Your task to perform on an android device: Go to Google maps Image 0: 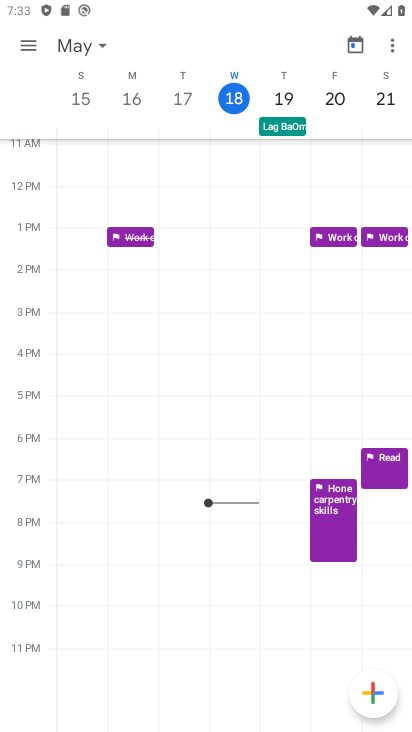
Step 0: press home button
Your task to perform on an android device: Go to Google maps Image 1: 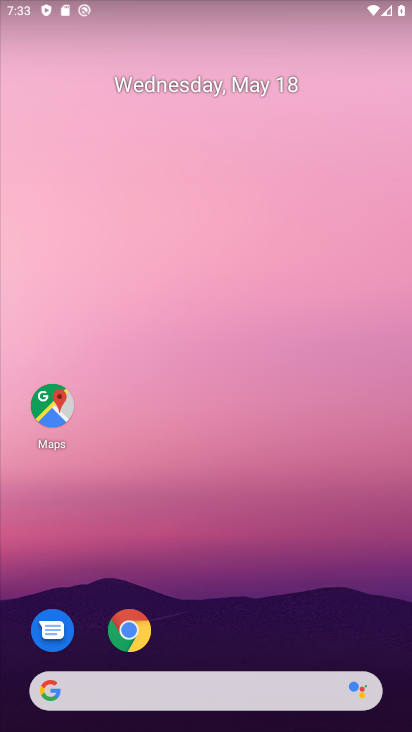
Step 1: click (44, 407)
Your task to perform on an android device: Go to Google maps Image 2: 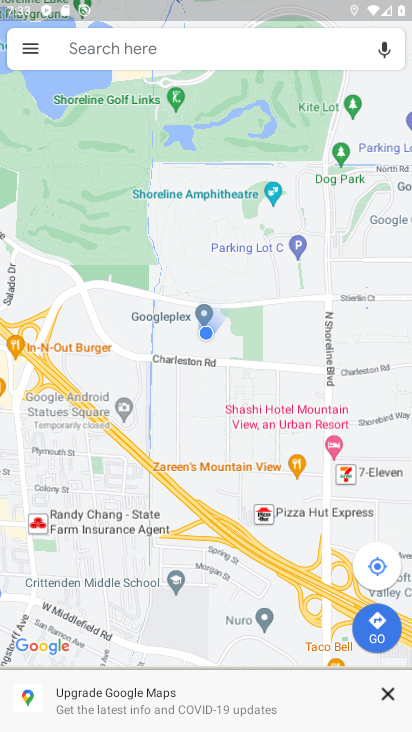
Step 2: task complete